Your task to perform on an android device: Turn off the flashlight Image 0: 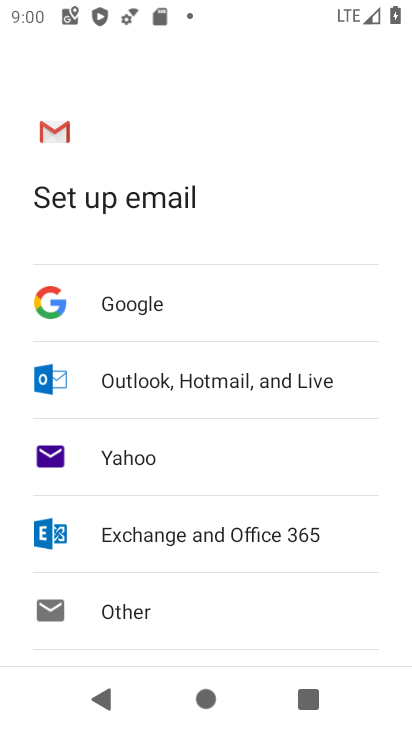
Step 0: press home button
Your task to perform on an android device: Turn off the flashlight Image 1: 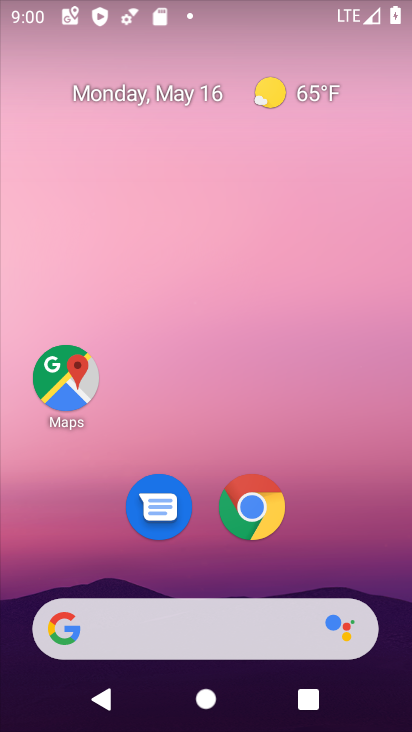
Step 1: drag from (212, 577) to (190, 58)
Your task to perform on an android device: Turn off the flashlight Image 2: 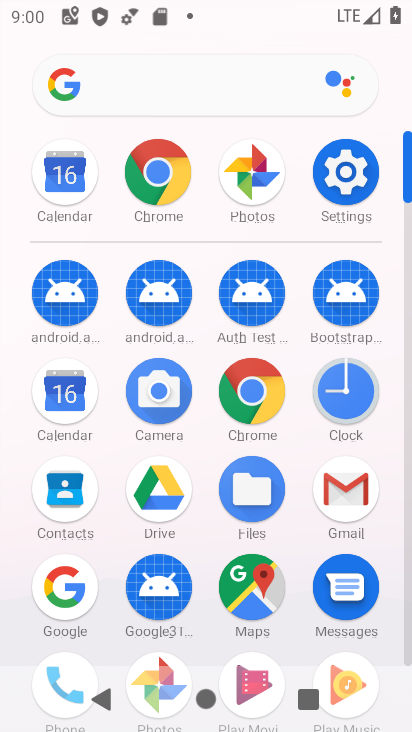
Step 2: click (328, 153)
Your task to perform on an android device: Turn off the flashlight Image 3: 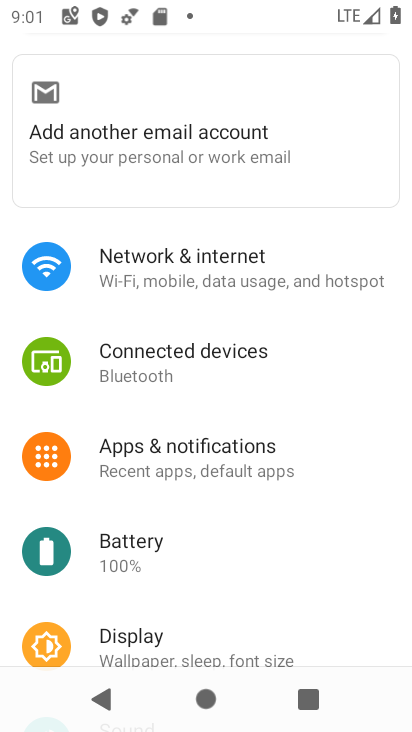
Step 3: task complete